Your task to perform on an android device: change the clock display to show seconds Image 0: 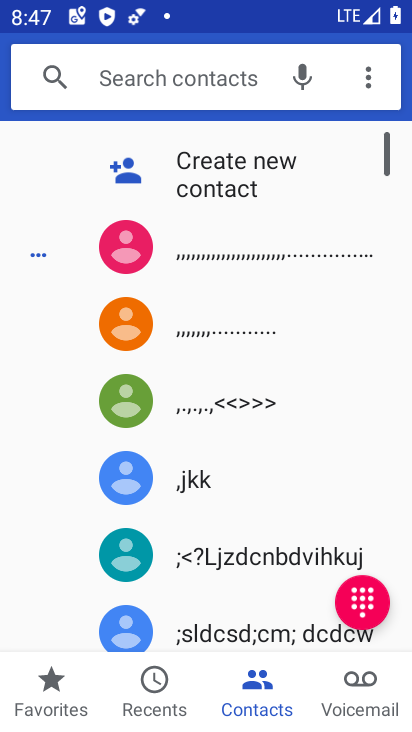
Step 0: press home button
Your task to perform on an android device: change the clock display to show seconds Image 1: 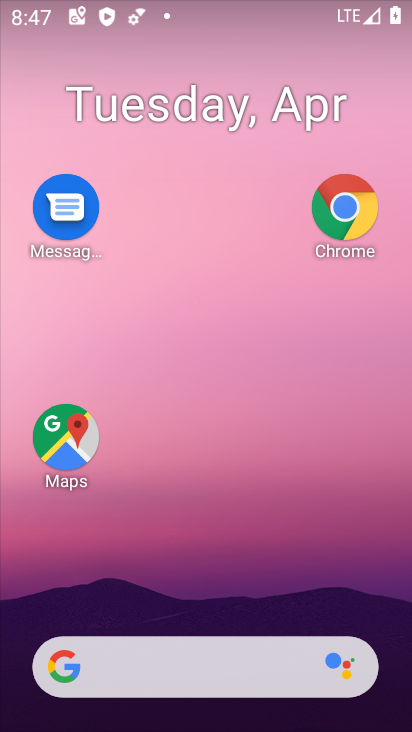
Step 1: drag from (193, 629) to (182, 12)
Your task to perform on an android device: change the clock display to show seconds Image 2: 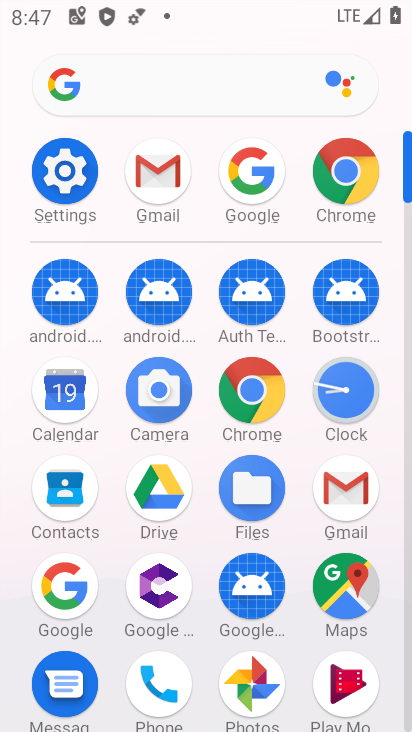
Step 2: click (348, 406)
Your task to perform on an android device: change the clock display to show seconds Image 3: 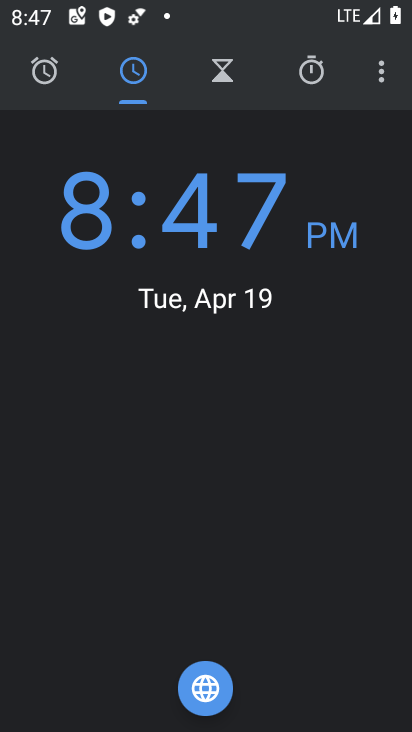
Step 3: click (371, 65)
Your task to perform on an android device: change the clock display to show seconds Image 4: 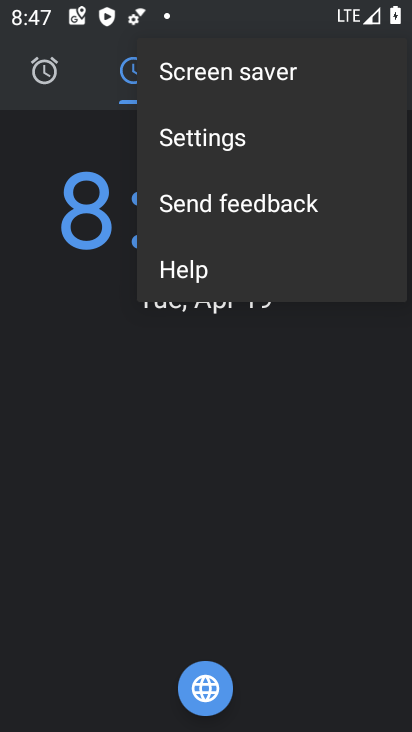
Step 4: click (244, 125)
Your task to perform on an android device: change the clock display to show seconds Image 5: 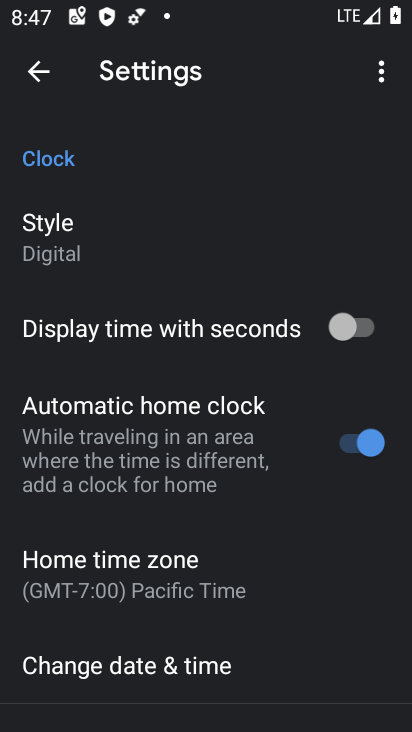
Step 5: click (355, 326)
Your task to perform on an android device: change the clock display to show seconds Image 6: 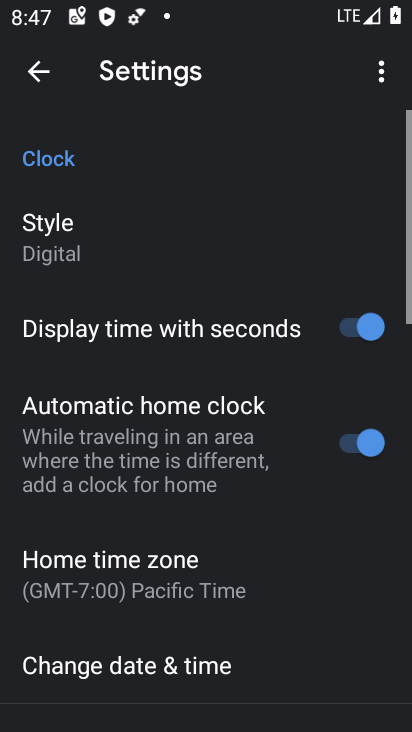
Step 6: task complete